Your task to perform on an android device: Go to Amazon Image 0: 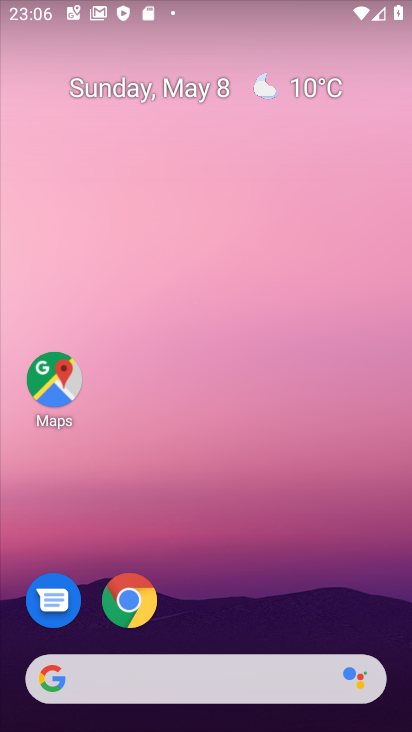
Step 0: click (128, 601)
Your task to perform on an android device: Go to Amazon Image 1: 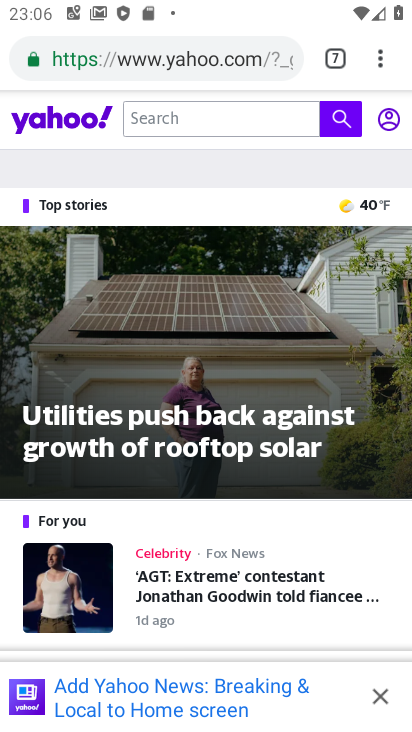
Step 1: click (331, 61)
Your task to perform on an android device: Go to Amazon Image 2: 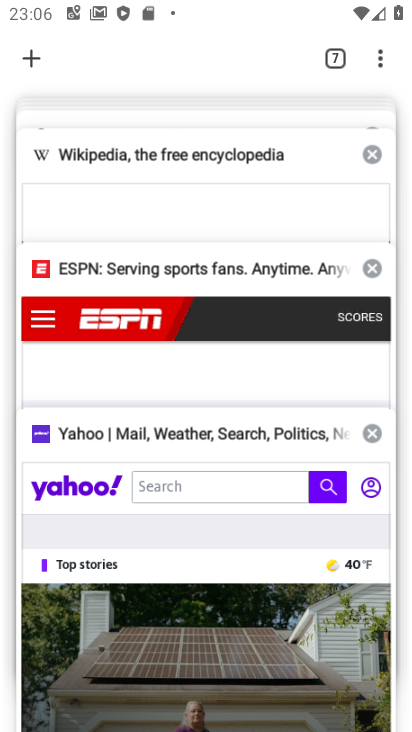
Step 2: click (43, 58)
Your task to perform on an android device: Go to Amazon Image 3: 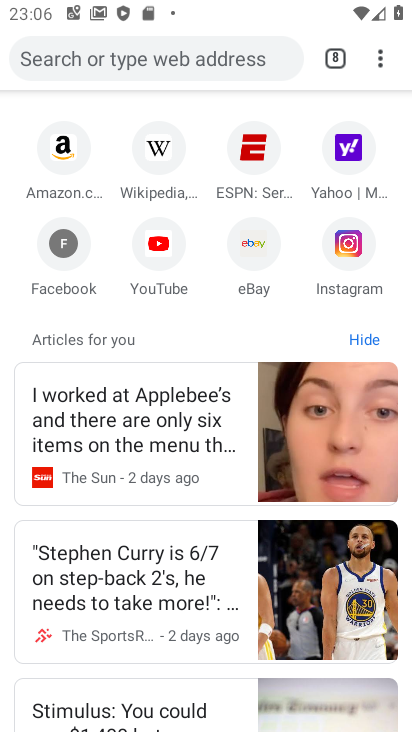
Step 3: click (56, 149)
Your task to perform on an android device: Go to Amazon Image 4: 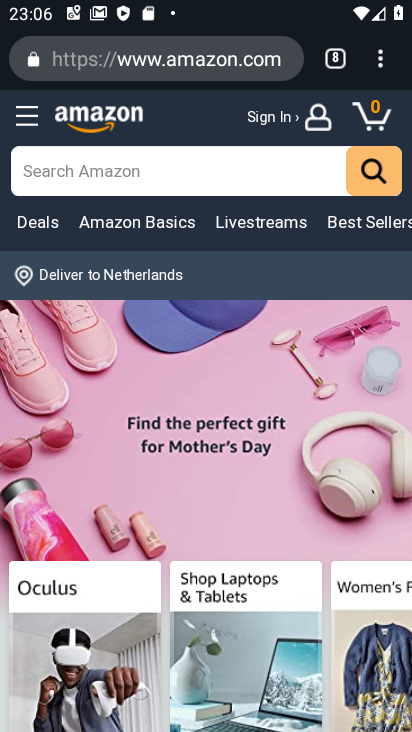
Step 4: task complete